Your task to perform on an android device: open the mobile data screen to see how much data has been used Image 0: 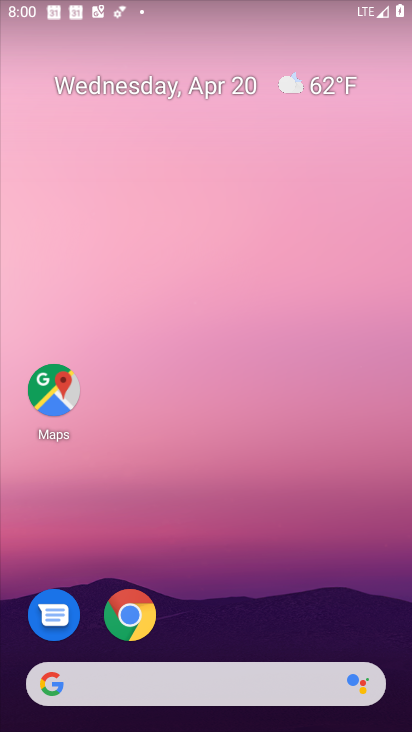
Step 0: drag from (191, 584) to (241, 7)
Your task to perform on an android device: open the mobile data screen to see how much data has been used Image 1: 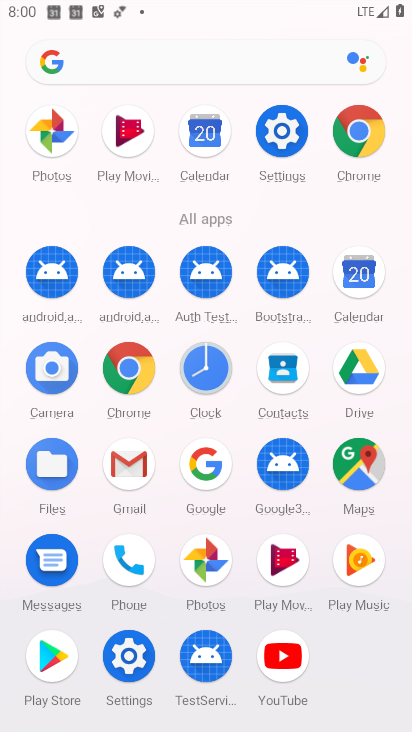
Step 1: click (287, 189)
Your task to perform on an android device: open the mobile data screen to see how much data has been used Image 2: 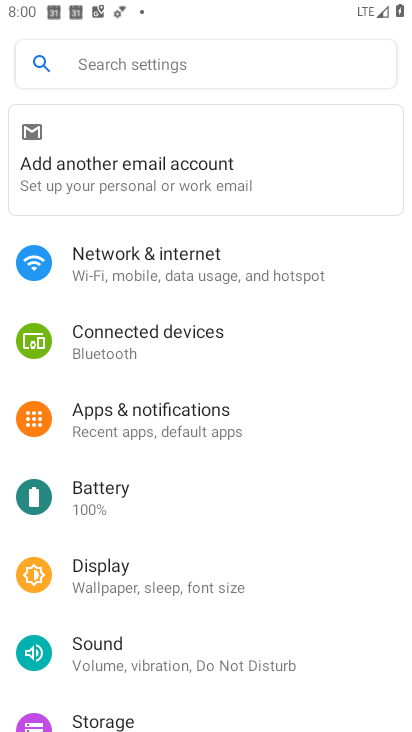
Step 2: click (188, 269)
Your task to perform on an android device: open the mobile data screen to see how much data has been used Image 3: 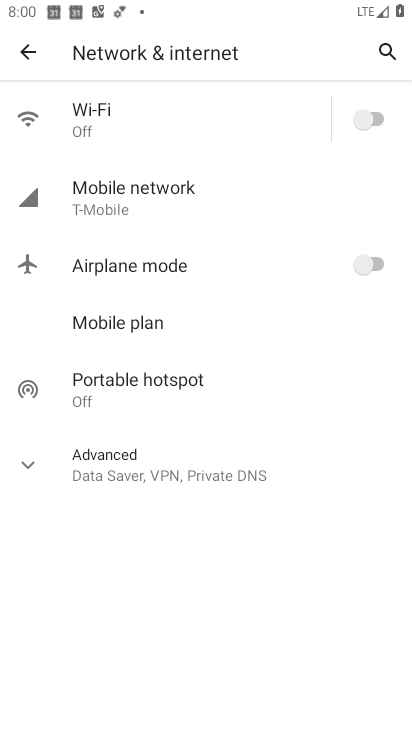
Step 3: click (162, 211)
Your task to perform on an android device: open the mobile data screen to see how much data has been used Image 4: 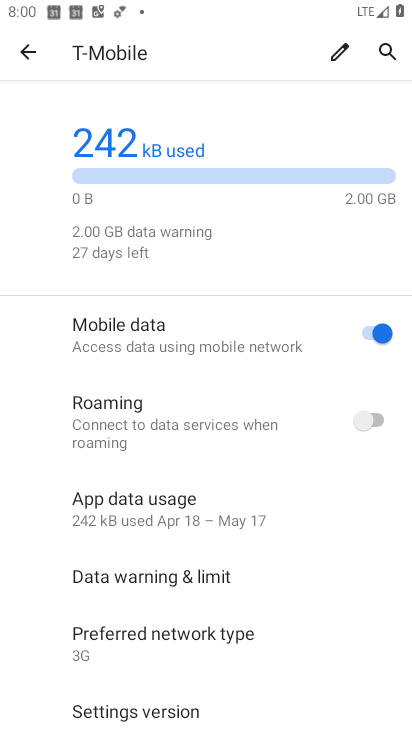
Step 4: click (165, 517)
Your task to perform on an android device: open the mobile data screen to see how much data has been used Image 5: 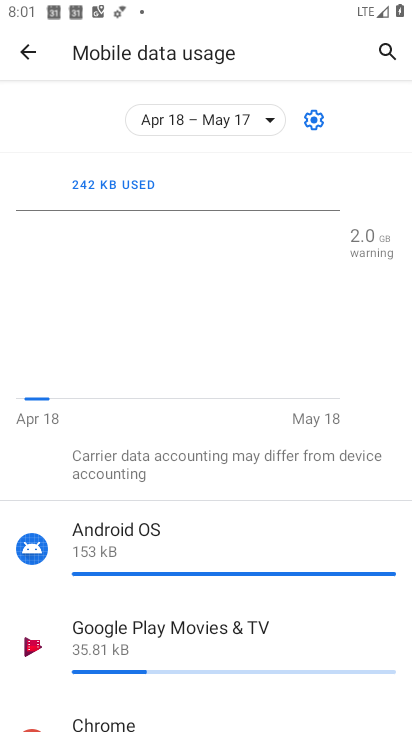
Step 5: task complete